Your task to perform on an android device: open sync settings in chrome Image 0: 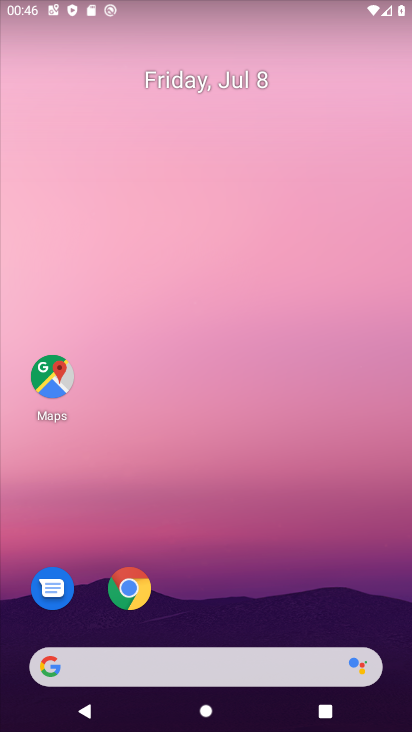
Step 0: drag from (173, 627) to (225, 158)
Your task to perform on an android device: open sync settings in chrome Image 1: 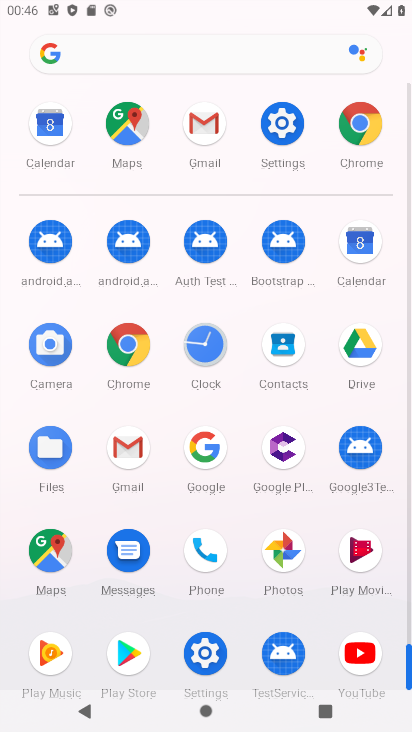
Step 1: click (119, 340)
Your task to perform on an android device: open sync settings in chrome Image 2: 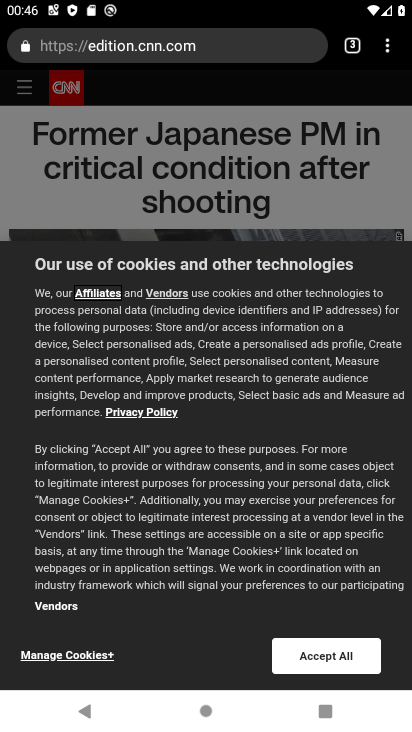
Step 2: click (383, 54)
Your task to perform on an android device: open sync settings in chrome Image 3: 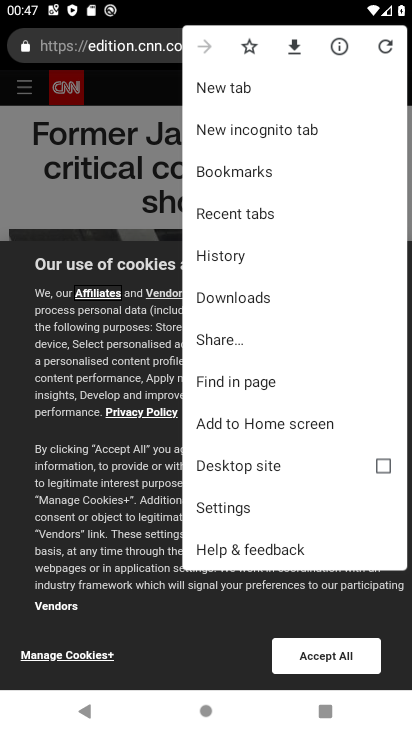
Step 3: click (226, 511)
Your task to perform on an android device: open sync settings in chrome Image 4: 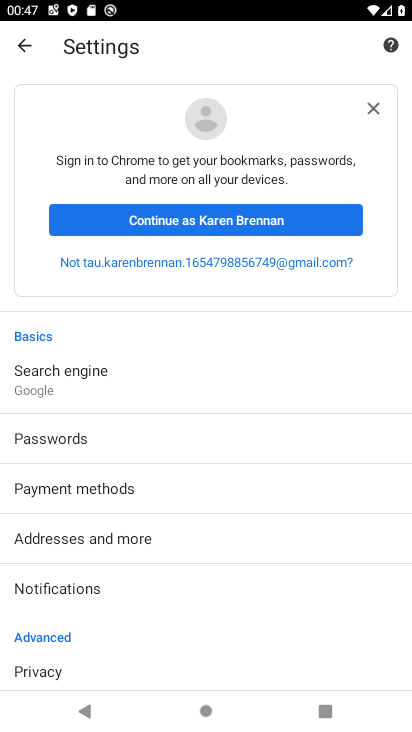
Step 4: drag from (120, 606) to (177, 232)
Your task to perform on an android device: open sync settings in chrome Image 5: 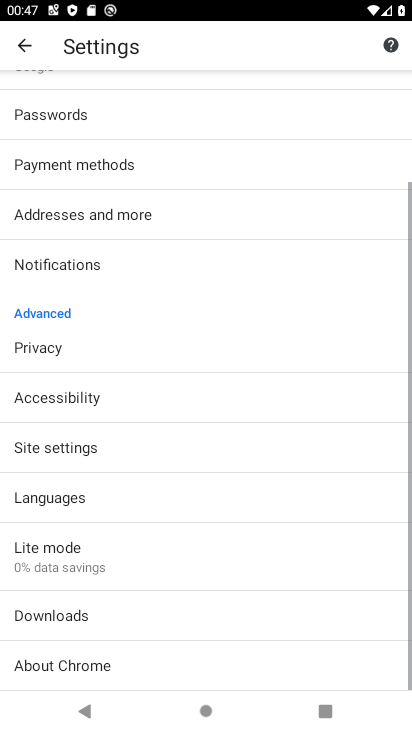
Step 5: click (80, 448)
Your task to perform on an android device: open sync settings in chrome Image 6: 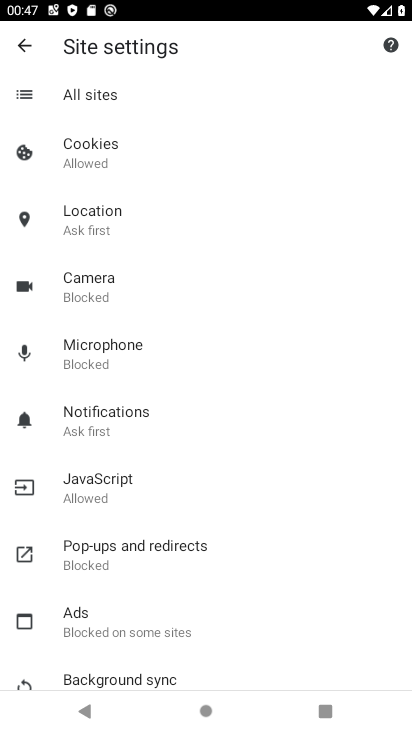
Step 6: drag from (191, 645) to (248, 201)
Your task to perform on an android device: open sync settings in chrome Image 7: 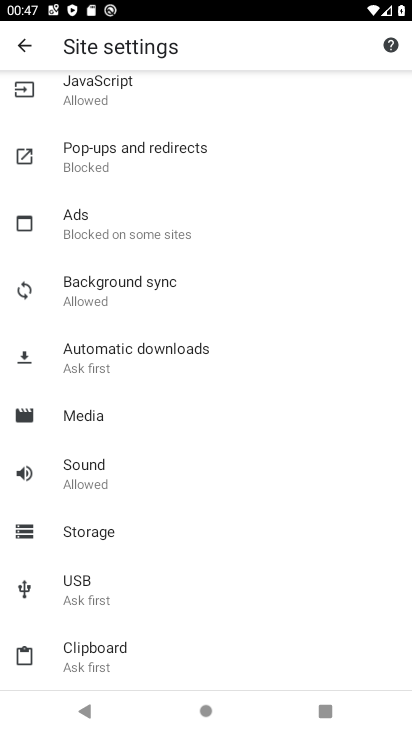
Step 7: click (129, 275)
Your task to perform on an android device: open sync settings in chrome Image 8: 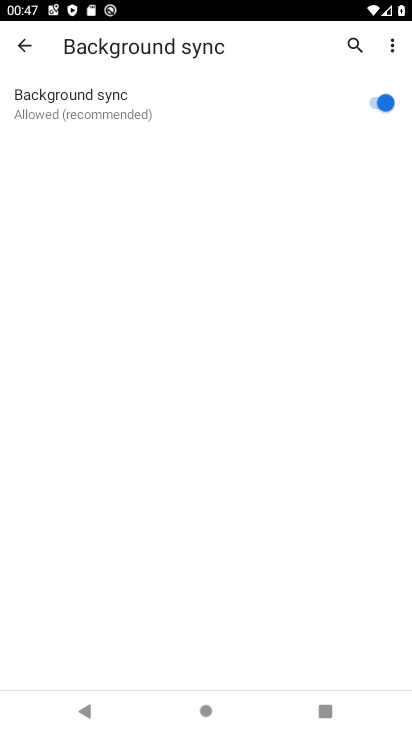
Step 8: task complete